Your task to perform on an android device: Go to notification settings Image 0: 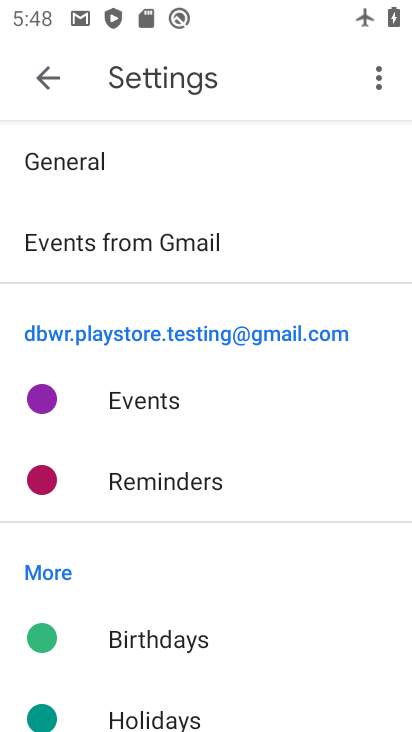
Step 0: press home button
Your task to perform on an android device: Go to notification settings Image 1: 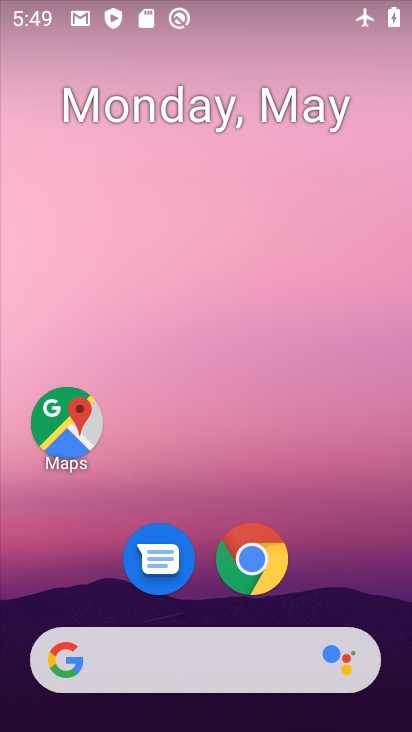
Step 1: drag from (336, 490) to (257, 80)
Your task to perform on an android device: Go to notification settings Image 2: 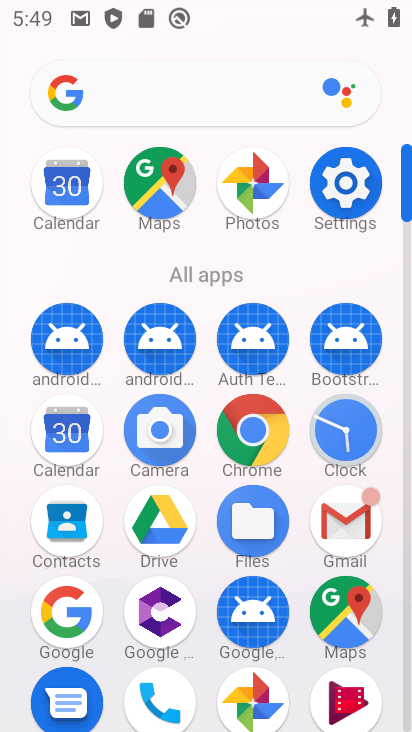
Step 2: click (348, 185)
Your task to perform on an android device: Go to notification settings Image 3: 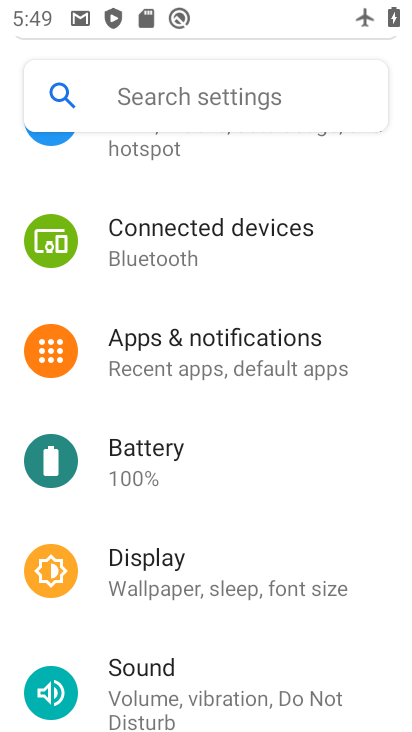
Step 3: click (249, 331)
Your task to perform on an android device: Go to notification settings Image 4: 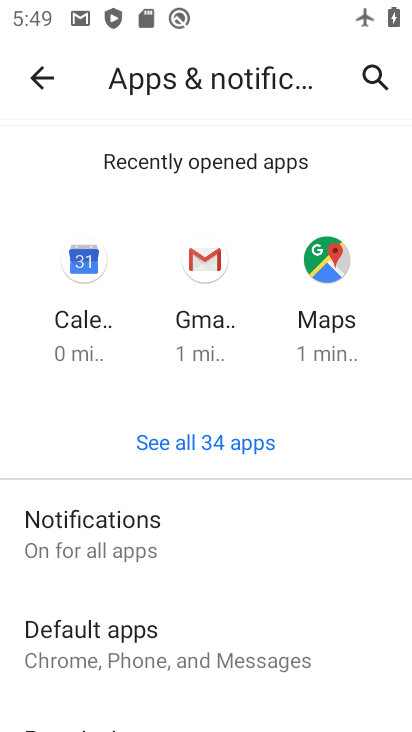
Step 4: task complete